Your task to perform on an android device: search for starred emails in the gmail app Image 0: 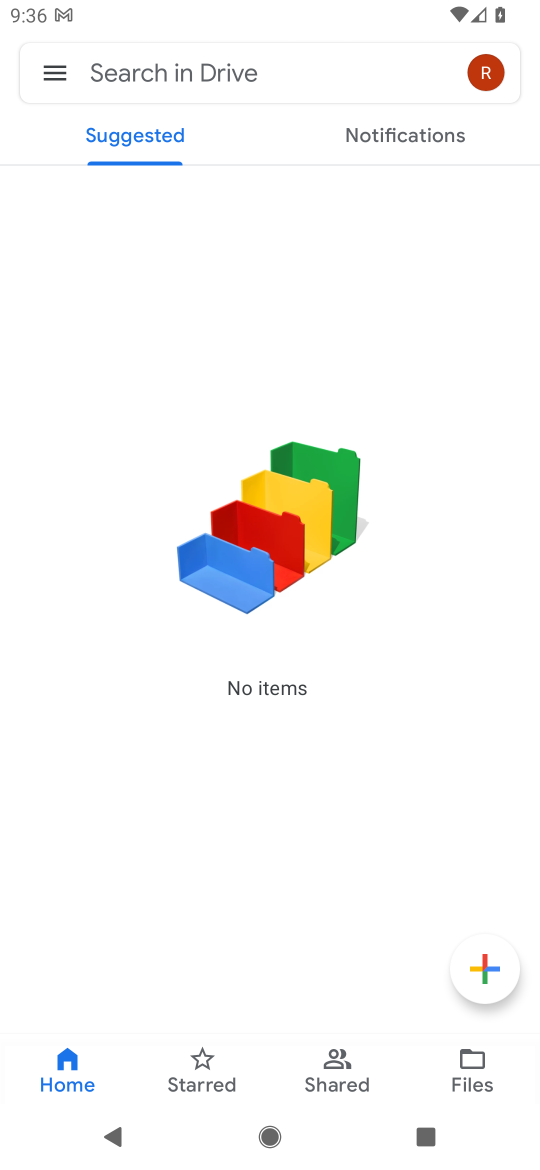
Step 0: press home button
Your task to perform on an android device: search for starred emails in the gmail app Image 1: 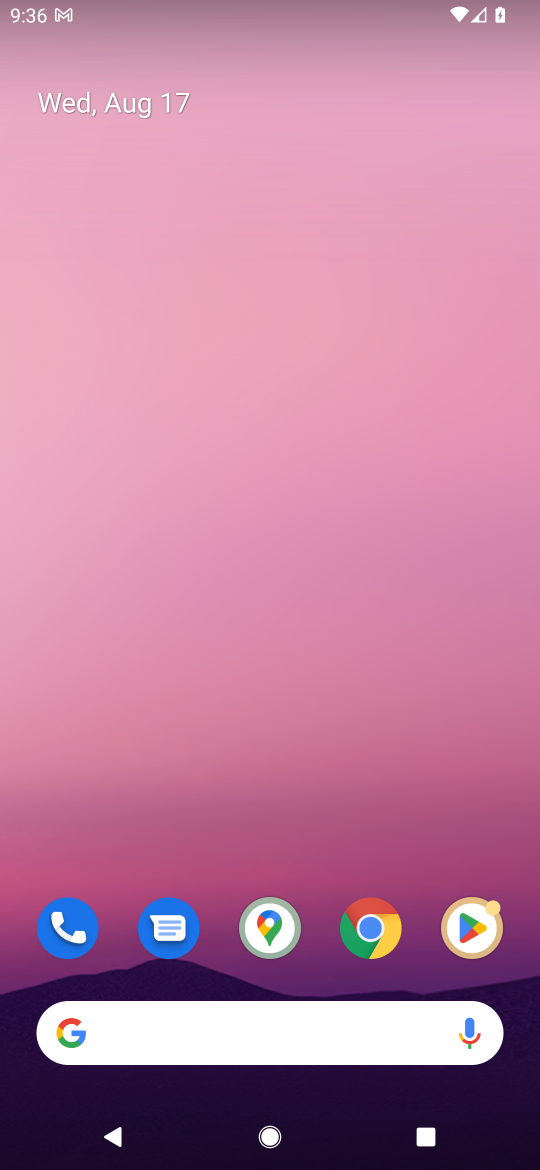
Step 1: drag from (337, 714) to (96, 0)
Your task to perform on an android device: search for starred emails in the gmail app Image 2: 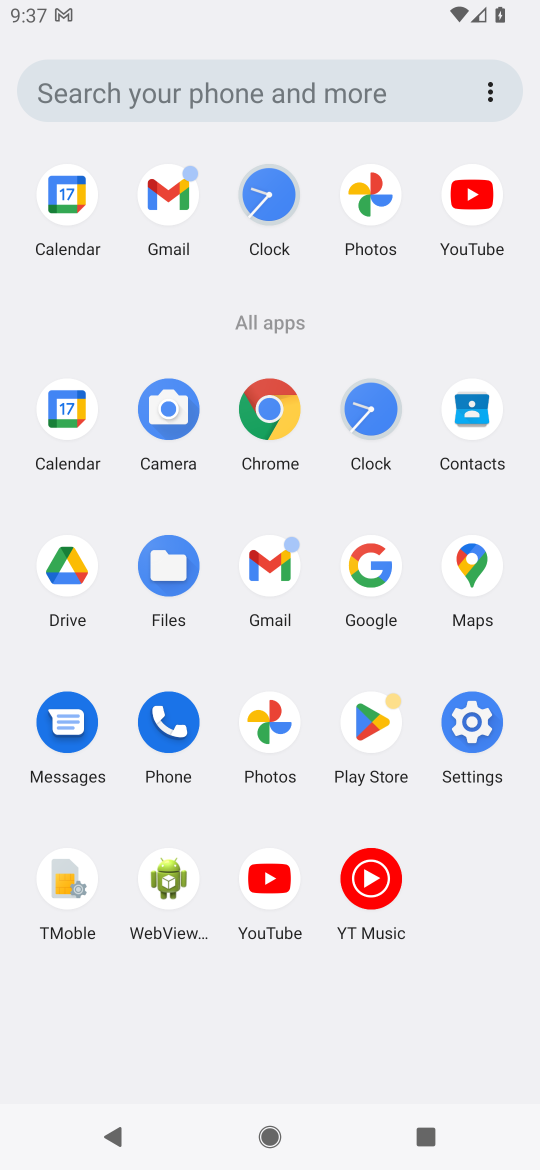
Step 2: click (276, 559)
Your task to perform on an android device: search for starred emails in the gmail app Image 3: 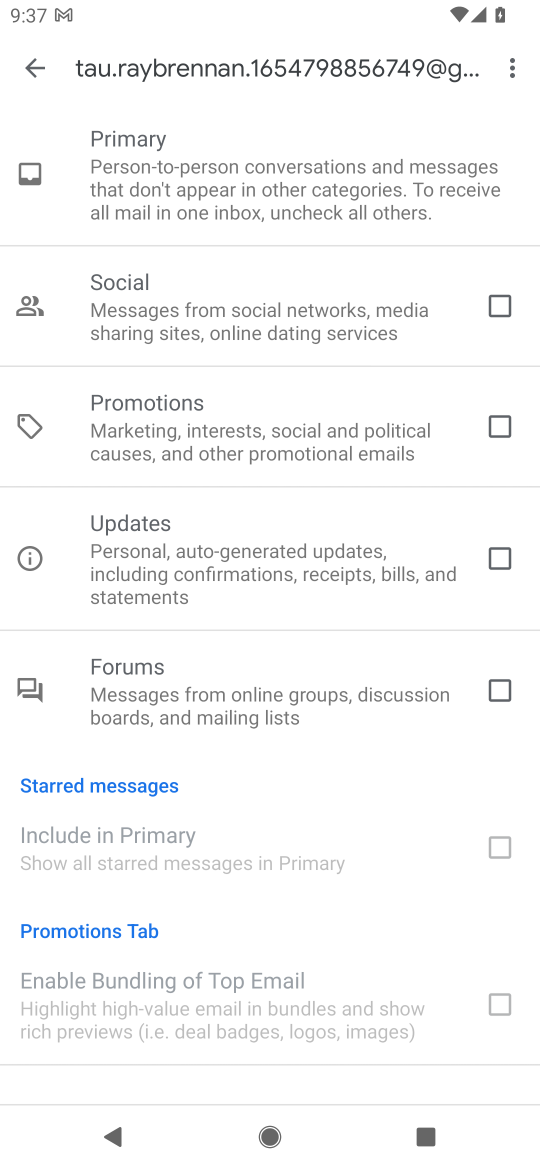
Step 3: click (33, 70)
Your task to perform on an android device: search for starred emails in the gmail app Image 4: 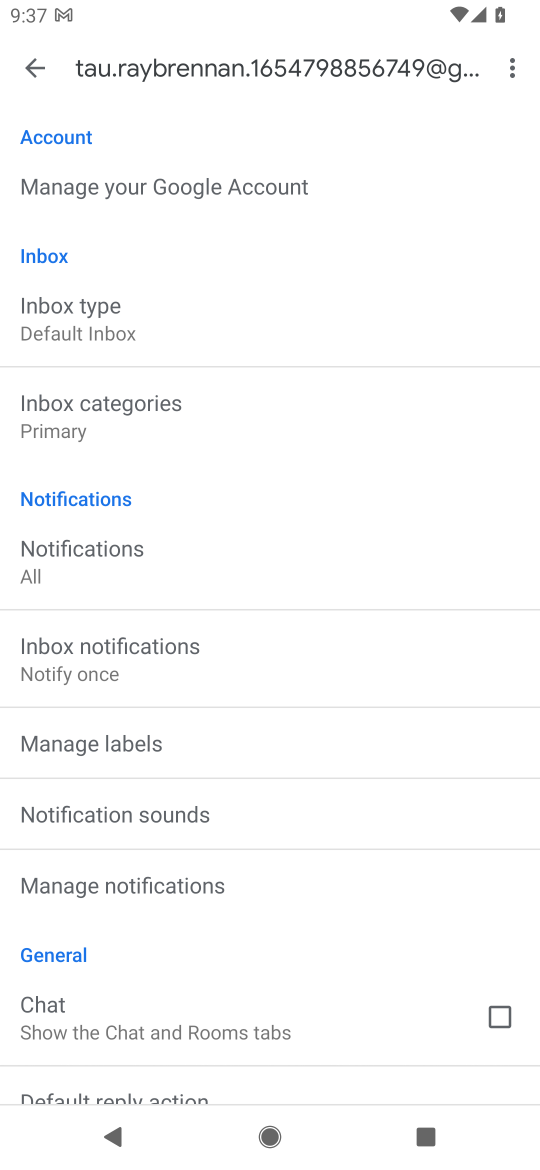
Step 4: click (33, 70)
Your task to perform on an android device: search for starred emails in the gmail app Image 5: 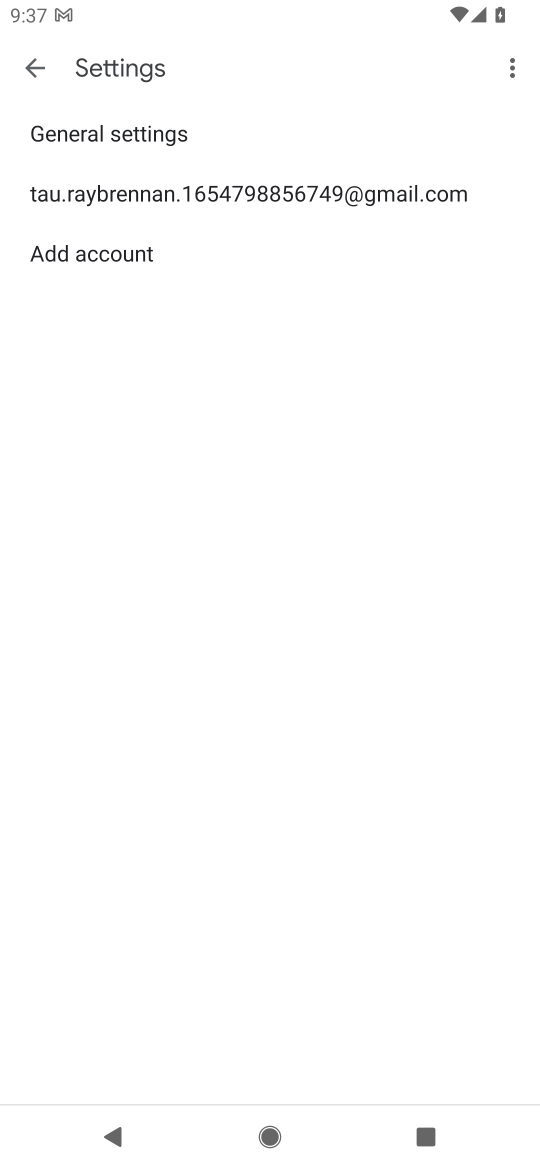
Step 5: click (42, 78)
Your task to perform on an android device: search for starred emails in the gmail app Image 6: 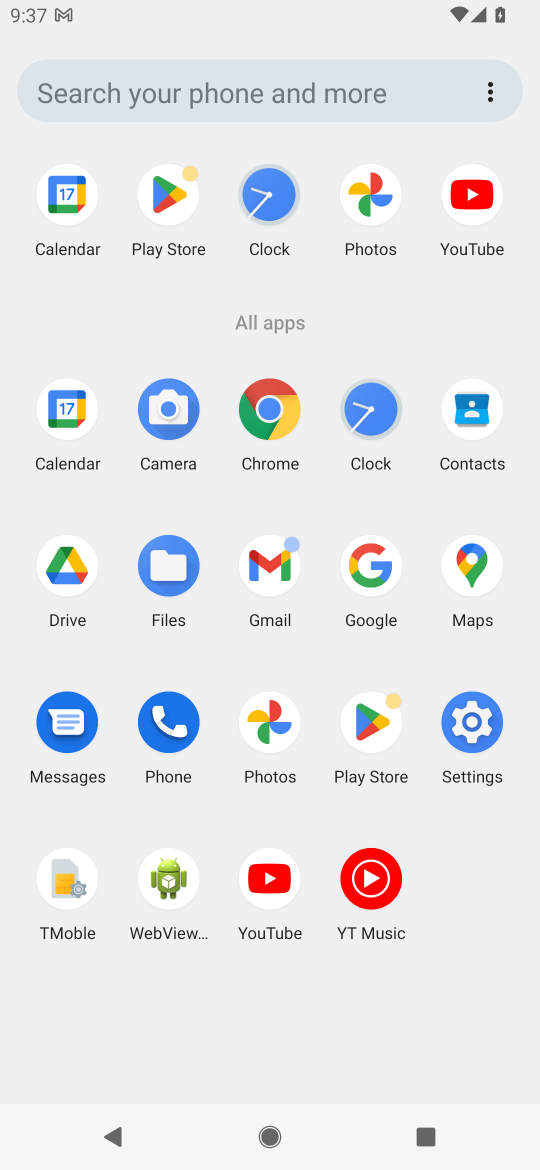
Step 6: click (270, 559)
Your task to perform on an android device: search for starred emails in the gmail app Image 7: 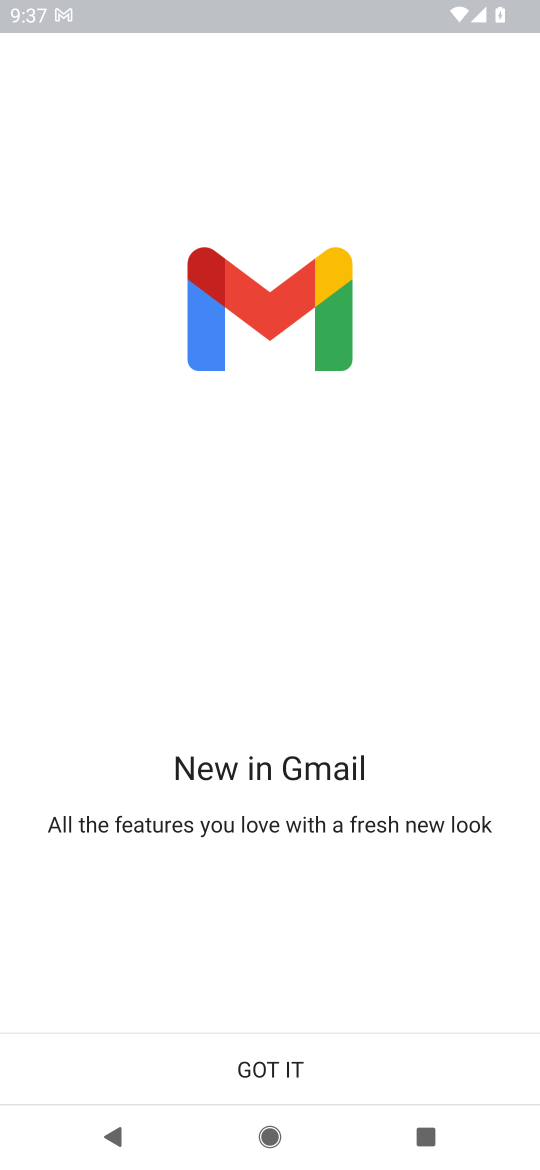
Step 7: click (266, 1056)
Your task to perform on an android device: search for starred emails in the gmail app Image 8: 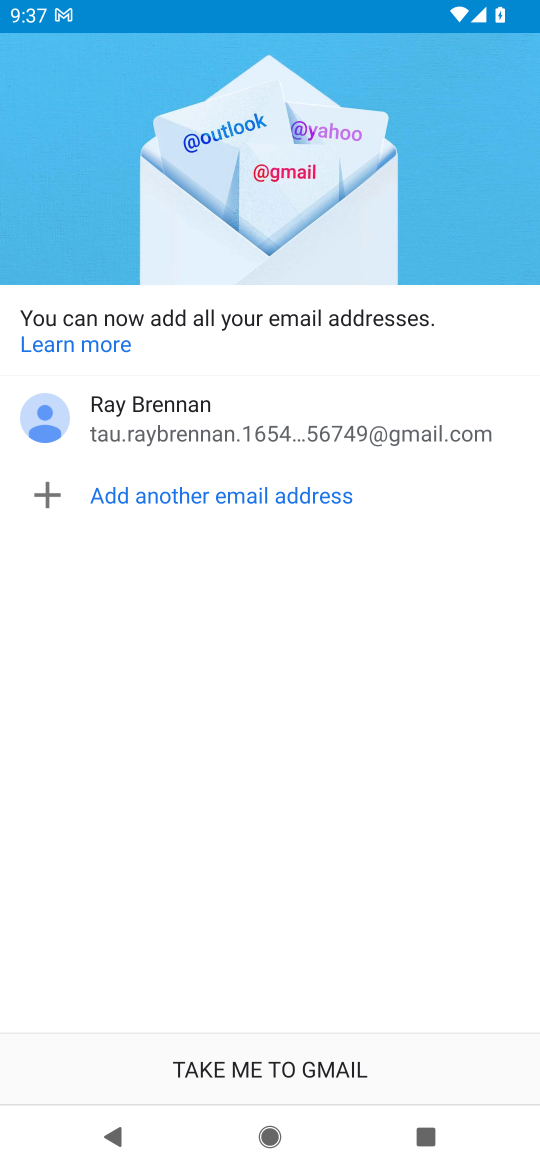
Step 8: click (266, 1056)
Your task to perform on an android device: search for starred emails in the gmail app Image 9: 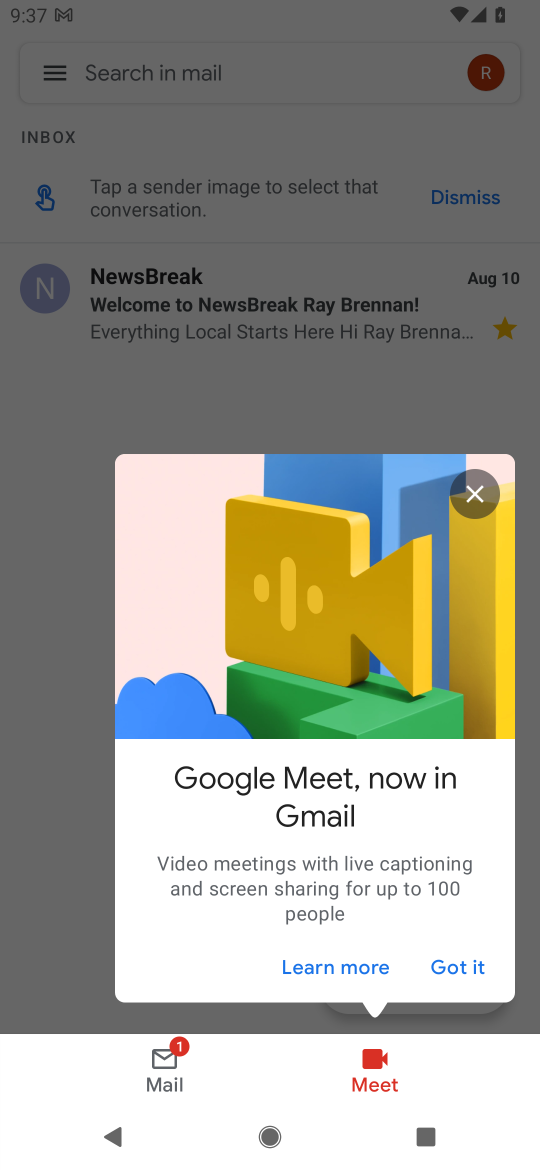
Step 9: click (496, 492)
Your task to perform on an android device: search for starred emails in the gmail app Image 10: 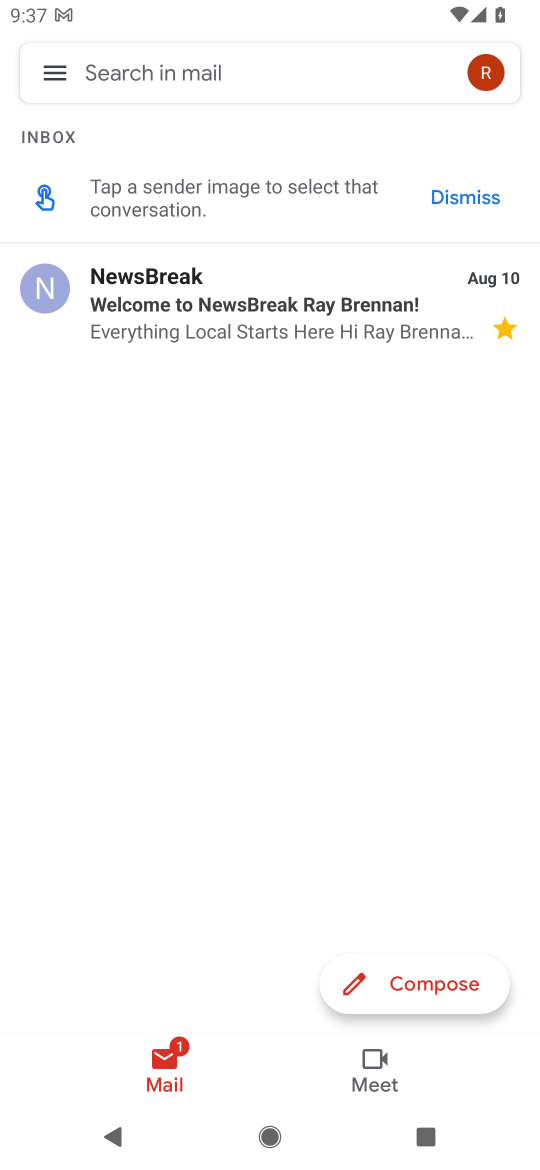
Step 10: click (47, 84)
Your task to perform on an android device: search for starred emails in the gmail app Image 11: 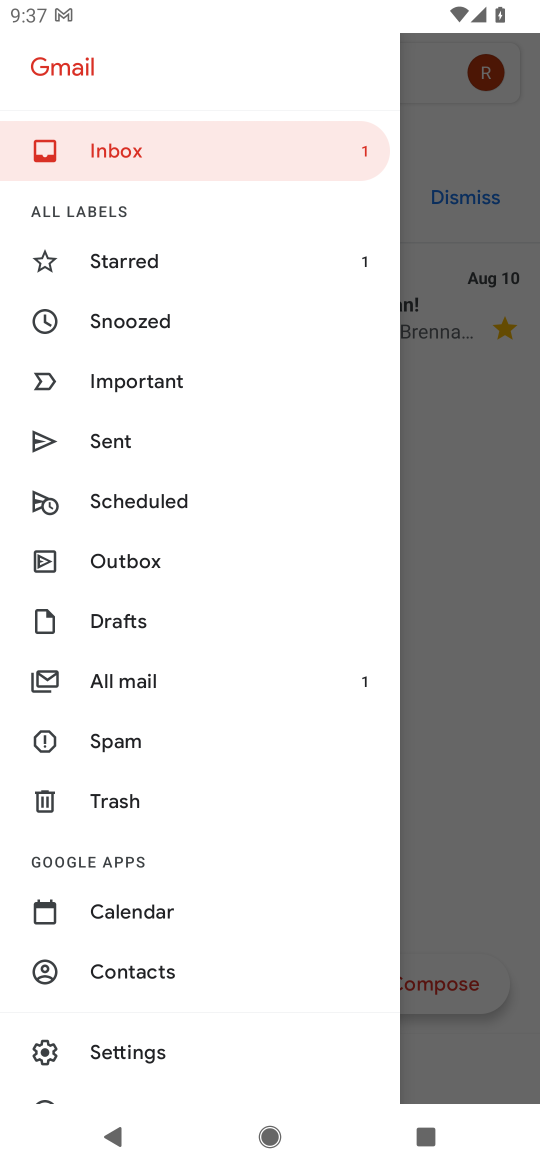
Step 11: click (125, 248)
Your task to perform on an android device: search for starred emails in the gmail app Image 12: 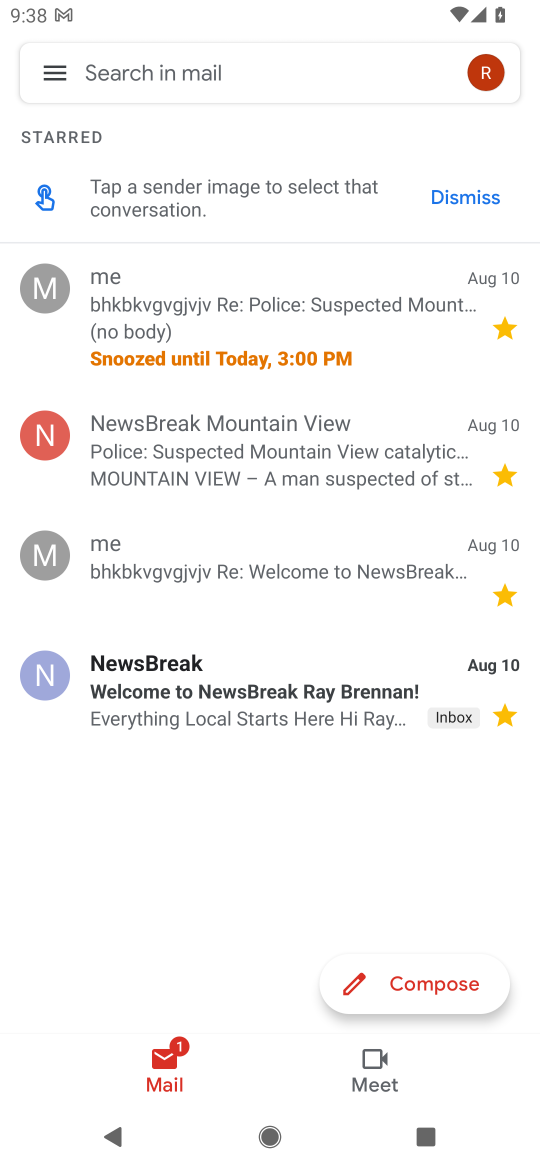
Step 12: task complete